Your task to perform on an android device: set the timer Image 0: 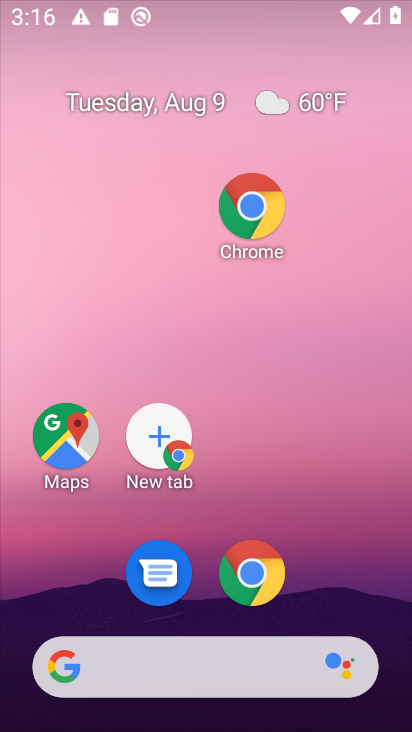
Step 0: drag from (306, 554) to (116, 9)
Your task to perform on an android device: set the timer Image 1: 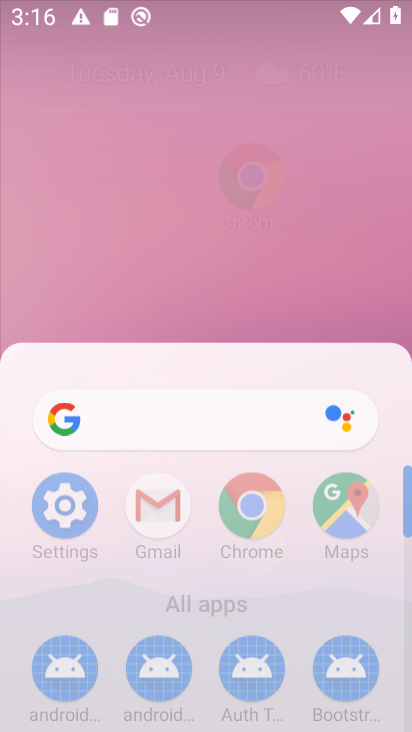
Step 1: drag from (246, 601) to (189, 128)
Your task to perform on an android device: set the timer Image 2: 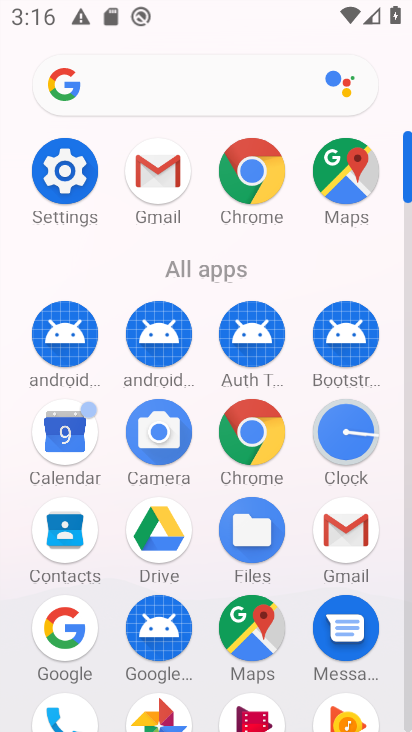
Step 2: click (340, 435)
Your task to perform on an android device: set the timer Image 3: 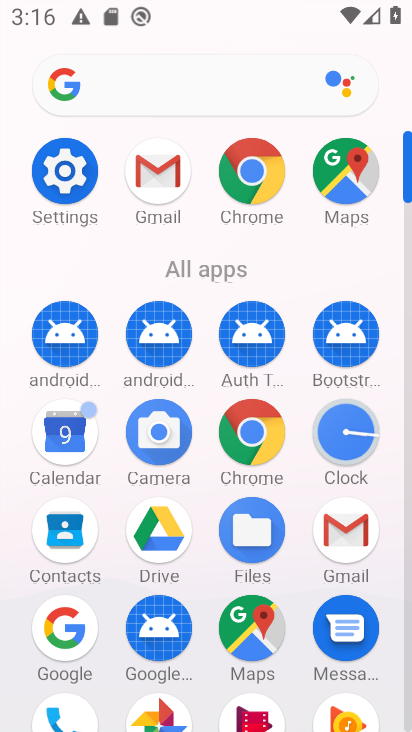
Step 3: click (344, 435)
Your task to perform on an android device: set the timer Image 4: 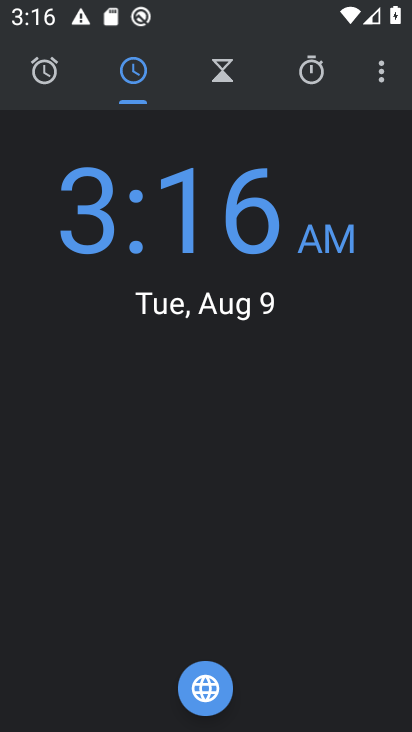
Step 4: click (381, 73)
Your task to perform on an android device: set the timer Image 5: 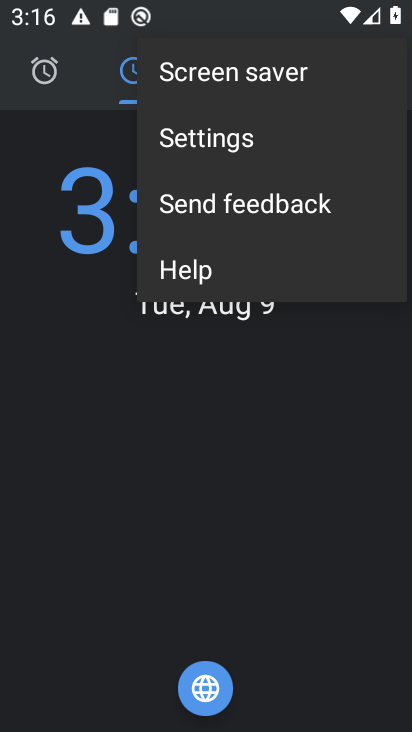
Step 5: click (93, 460)
Your task to perform on an android device: set the timer Image 6: 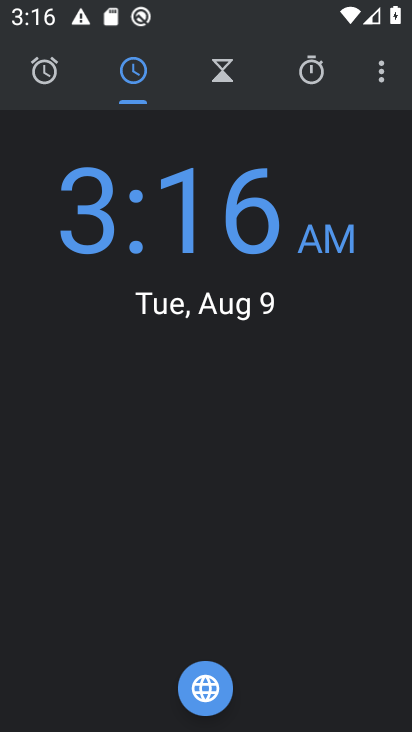
Step 6: click (218, 62)
Your task to perform on an android device: set the timer Image 7: 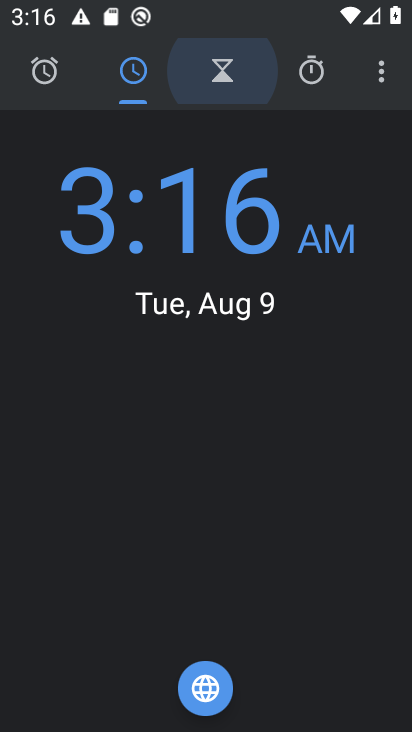
Step 7: click (228, 77)
Your task to perform on an android device: set the timer Image 8: 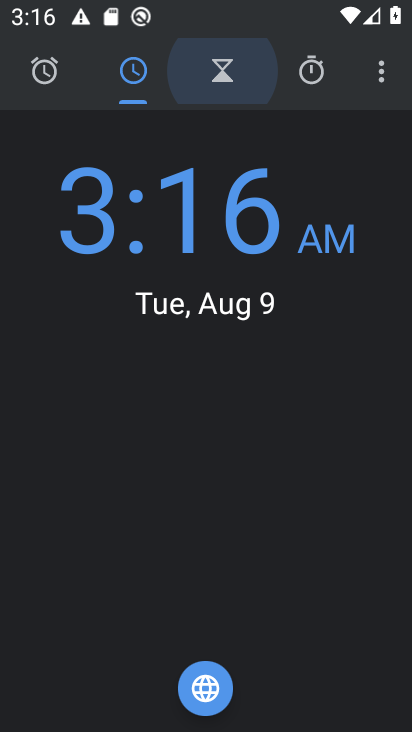
Step 8: click (231, 80)
Your task to perform on an android device: set the timer Image 9: 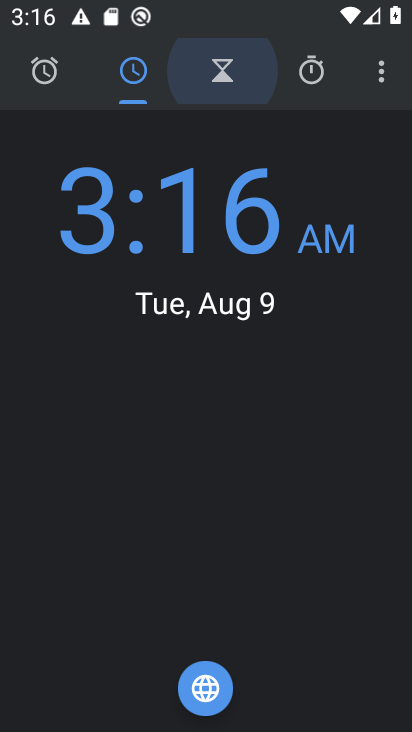
Step 9: click (231, 80)
Your task to perform on an android device: set the timer Image 10: 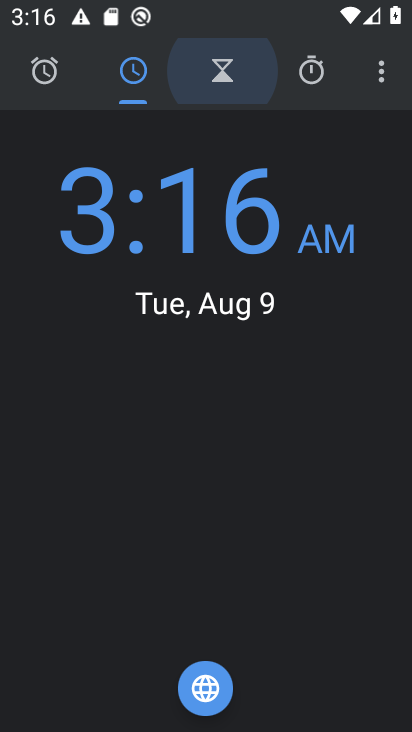
Step 10: click (211, 687)
Your task to perform on an android device: set the timer Image 11: 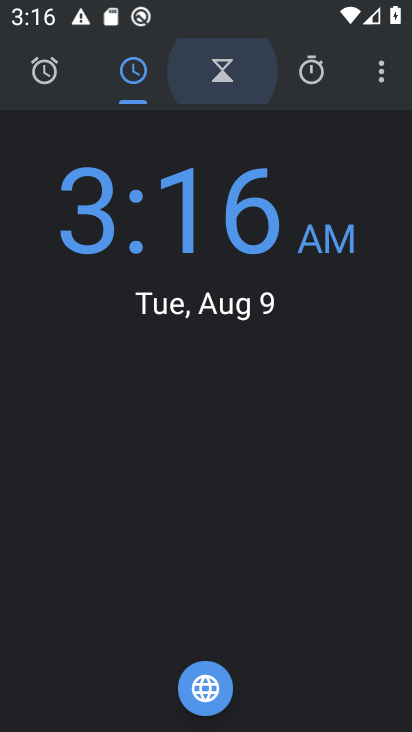
Step 11: click (247, 64)
Your task to perform on an android device: set the timer Image 12: 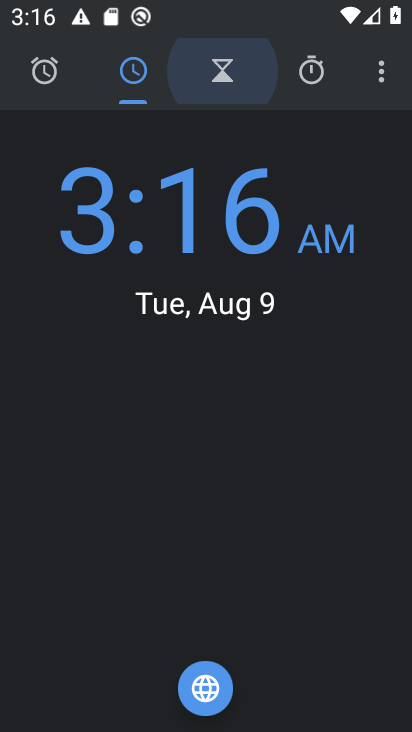
Step 12: click (230, 74)
Your task to perform on an android device: set the timer Image 13: 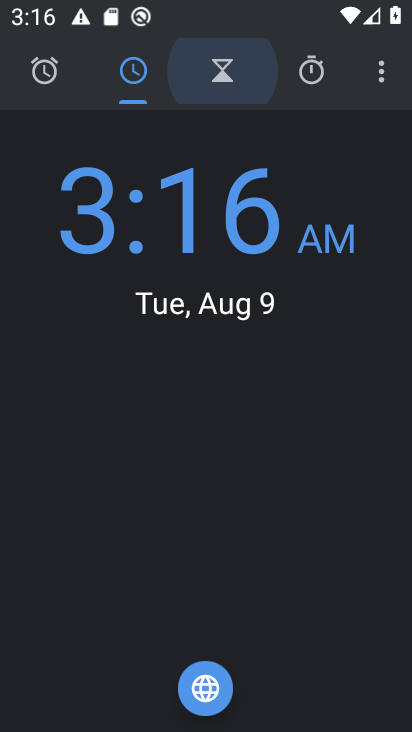
Step 13: click (217, 87)
Your task to perform on an android device: set the timer Image 14: 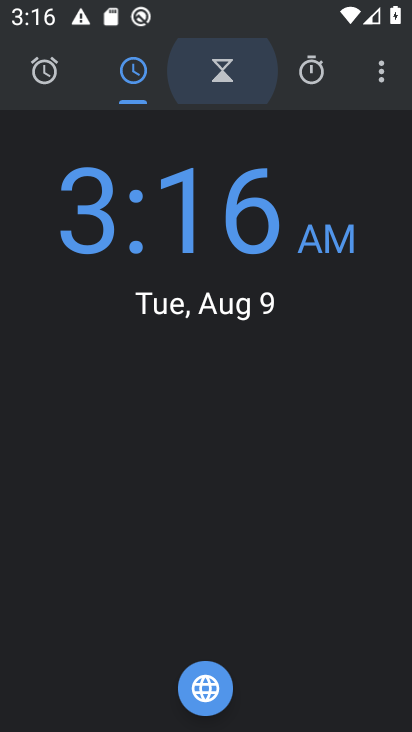
Step 14: click (217, 90)
Your task to perform on an android device: set the timer Image 15: 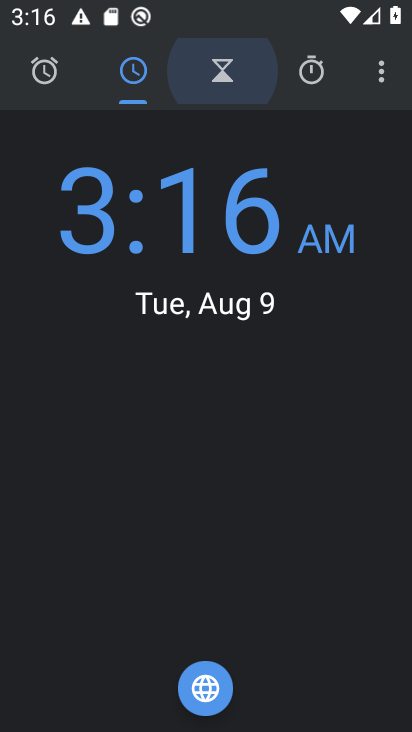
Step 15: click (238, 61)
Your task to perform on an android device: set the timer Image 16: 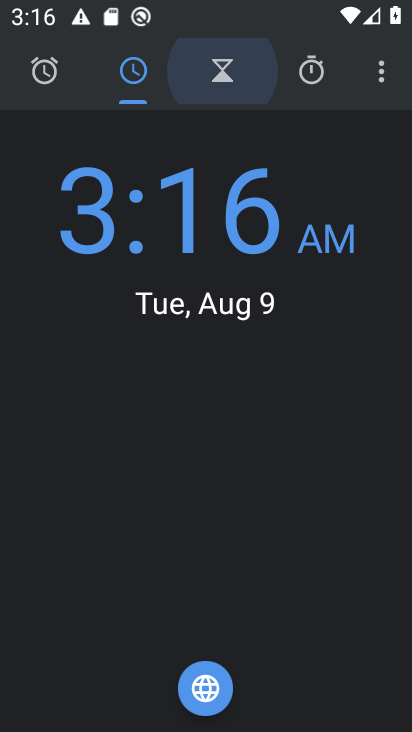
Step 16: click (129, 62)
Your task to perform on an android device: set the timer Image 17: 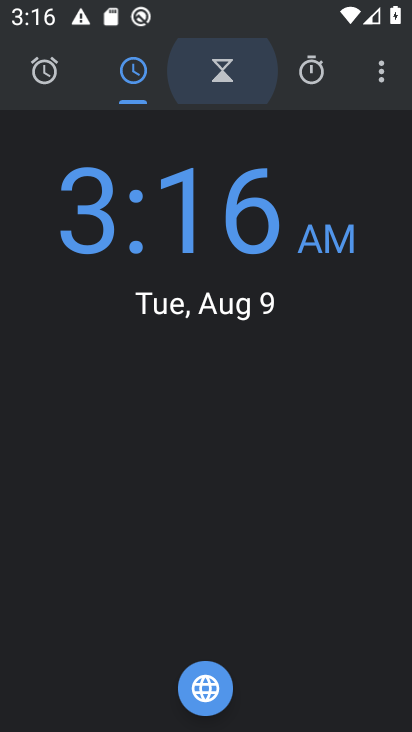
Step 17: click (234, 69)
Your task to perform on an android device: set the timer Image 18: 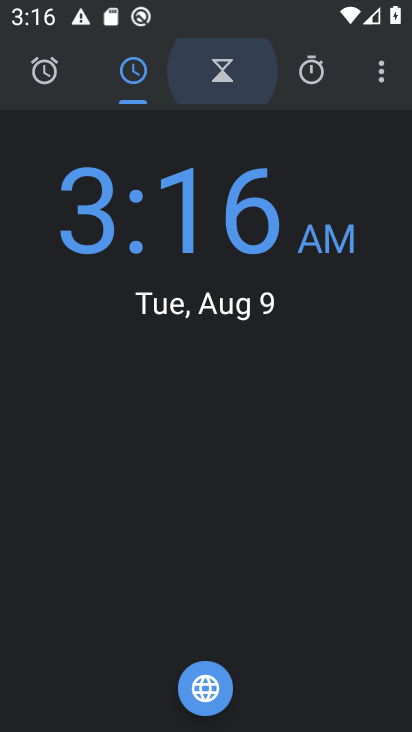
Step 18: click (221, 97)
Your task to perform on an android device: set the timer Image 19: 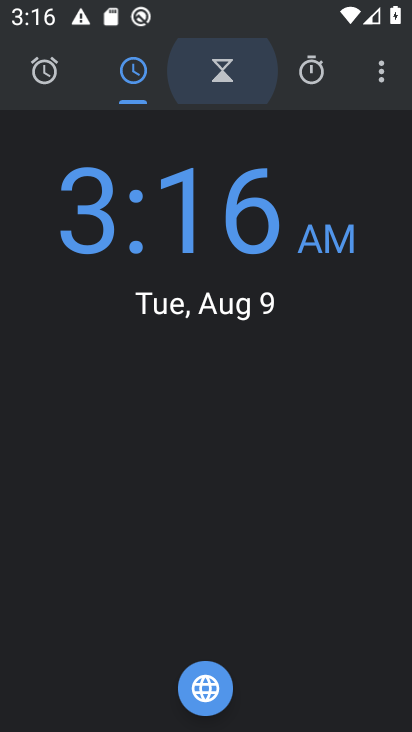
Step 19: click (214, 666)
Your task to perform on an android device: set the timer Image 20: 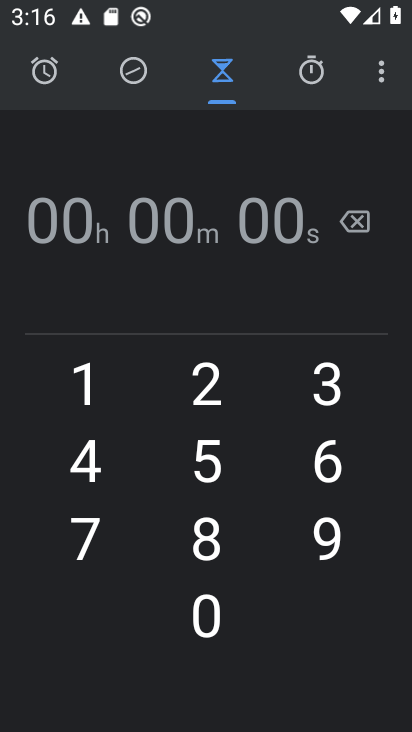
Step 20: click (218, 706)
Your task to perform on an android device: set the timer Image 21: 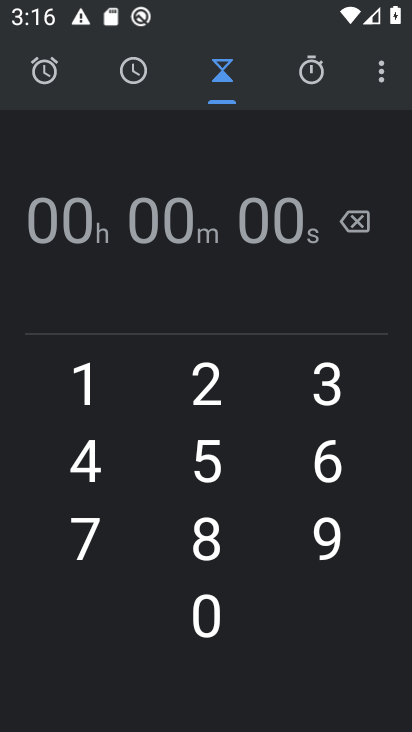
Step 21: click (217, 702)
Your task to perform on an android device: set the timer Image 22: 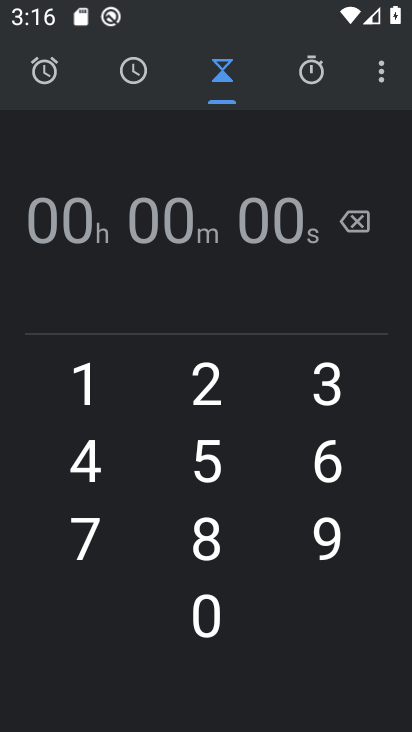
Step 22: click (196, 539)
Your task to perform on an android device: set the timer Image 23: 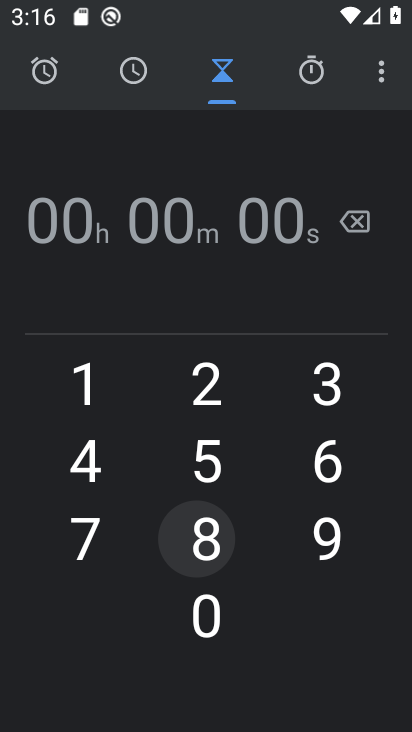
Step 23: click (195, 538)
Your task to perform on an android device: set the timer Image 24: 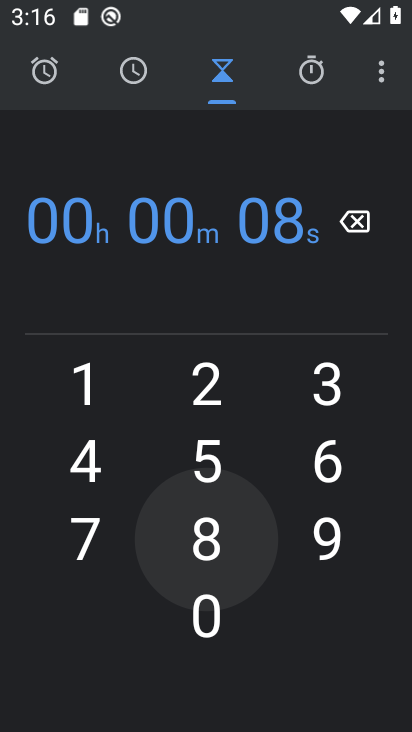
Step 24: click (190, 542)
Your task to perform on an android device: set the timer Image 25: 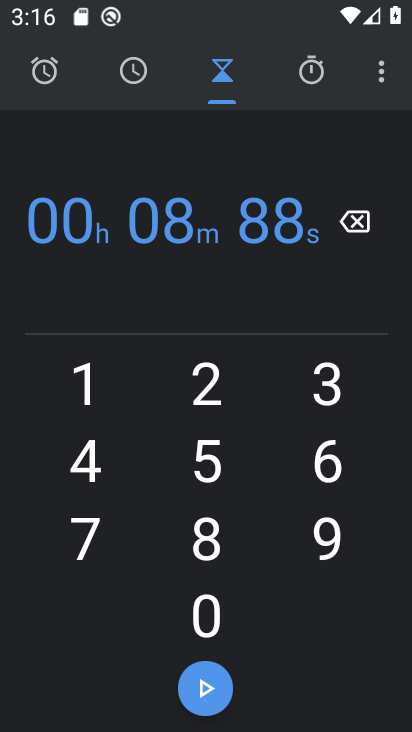
Step 25: click (199, 544)
Your task to perform on an android device: set the timer Image 26: 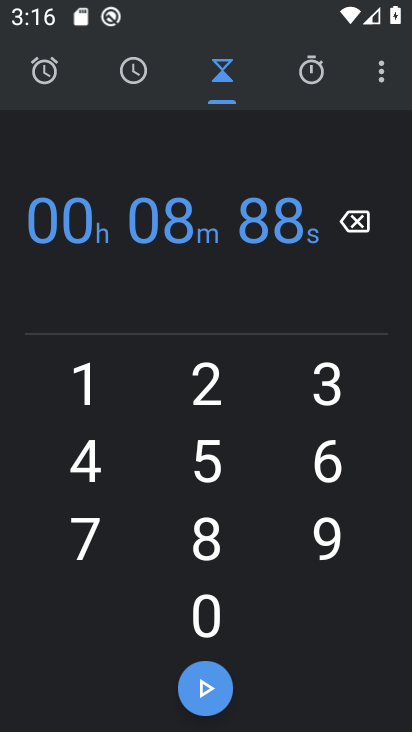
Step 26: click (208, 550)
Your task to perform on an android device: set the timer Image 27: 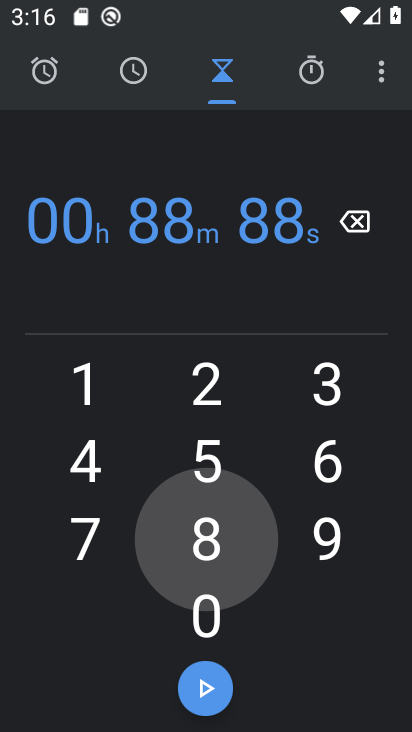
Step 27: click (218, 557)
Your task to perform on an android device: set the timer Image 28: 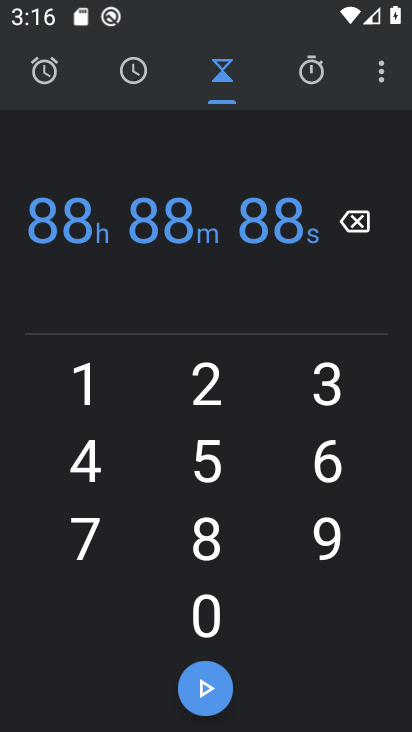
Step 28: click (216, 542)
Your task to perform on an android device: set the timer Image 29: 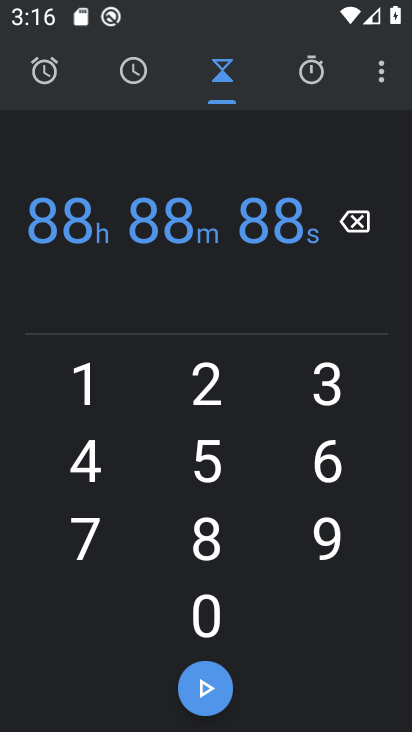
Step 29: click (216, 539)
Your task to perform on an android device: set the timer Image 30: 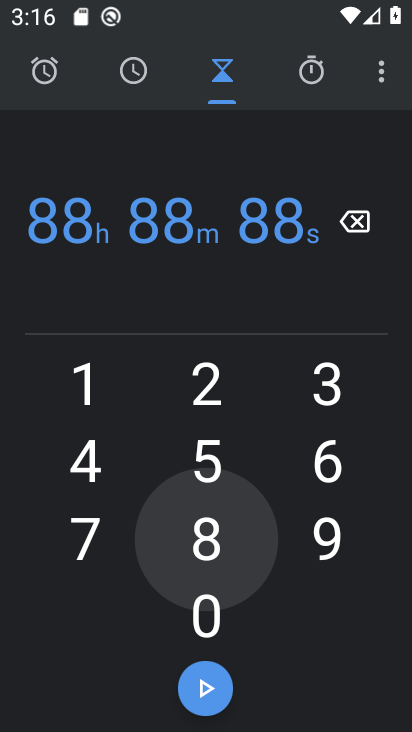
Step 30: click (215, 538)
Your task to perform on an android device: set the timer Image 31: 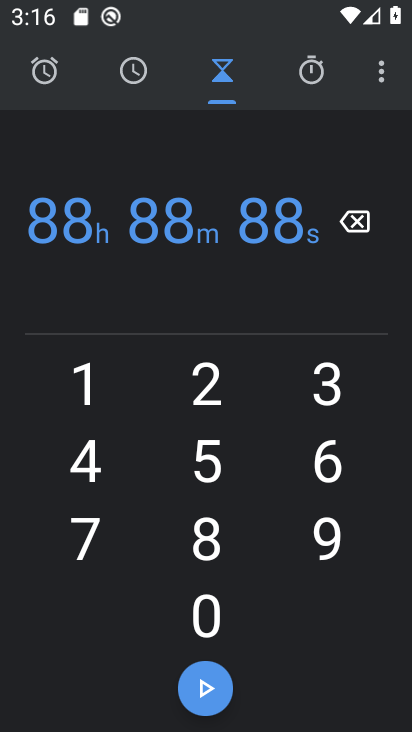
Step 31: click (208, 692)
Your task to perform on an android device: set the timer Image 32: 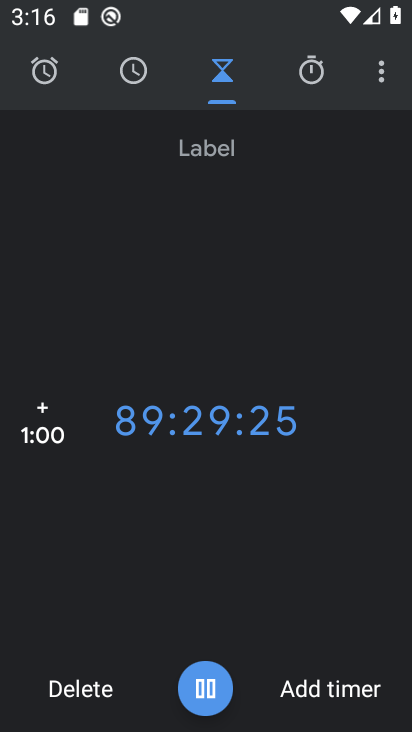
Step 32: click (208, 688)
Your task to perform on an android device: set the timer Image 33: 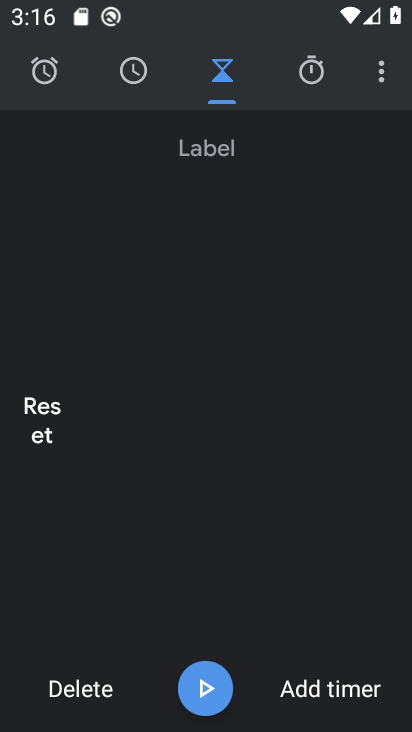
Step 33: task complete